Your task to perform on an android device: Open the calendar app, open the side menu, and click the "Day" option Image 0: 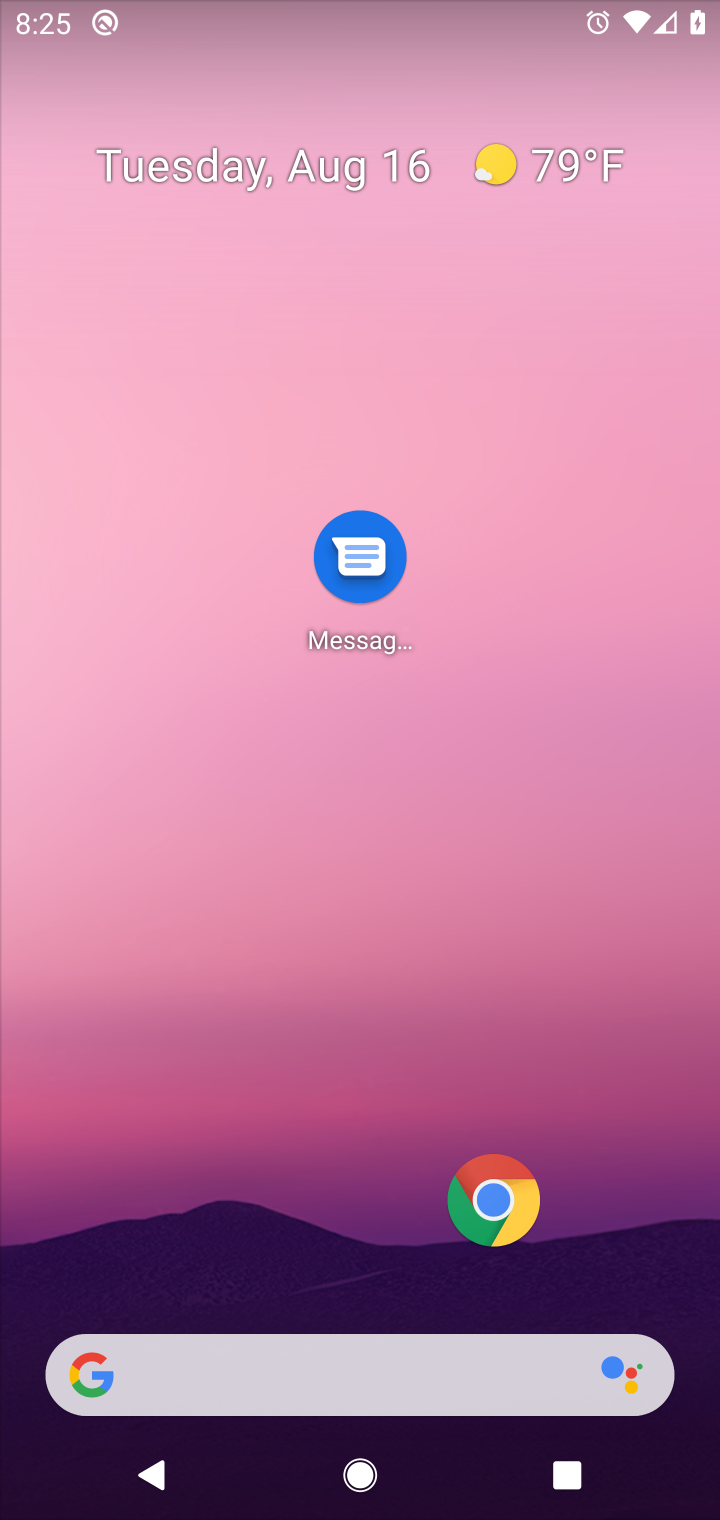
Step 0: click (451, 325)
Your task to perform on an android device: Open the calendar app, open the side menu, and click the "Day" option Image 1: 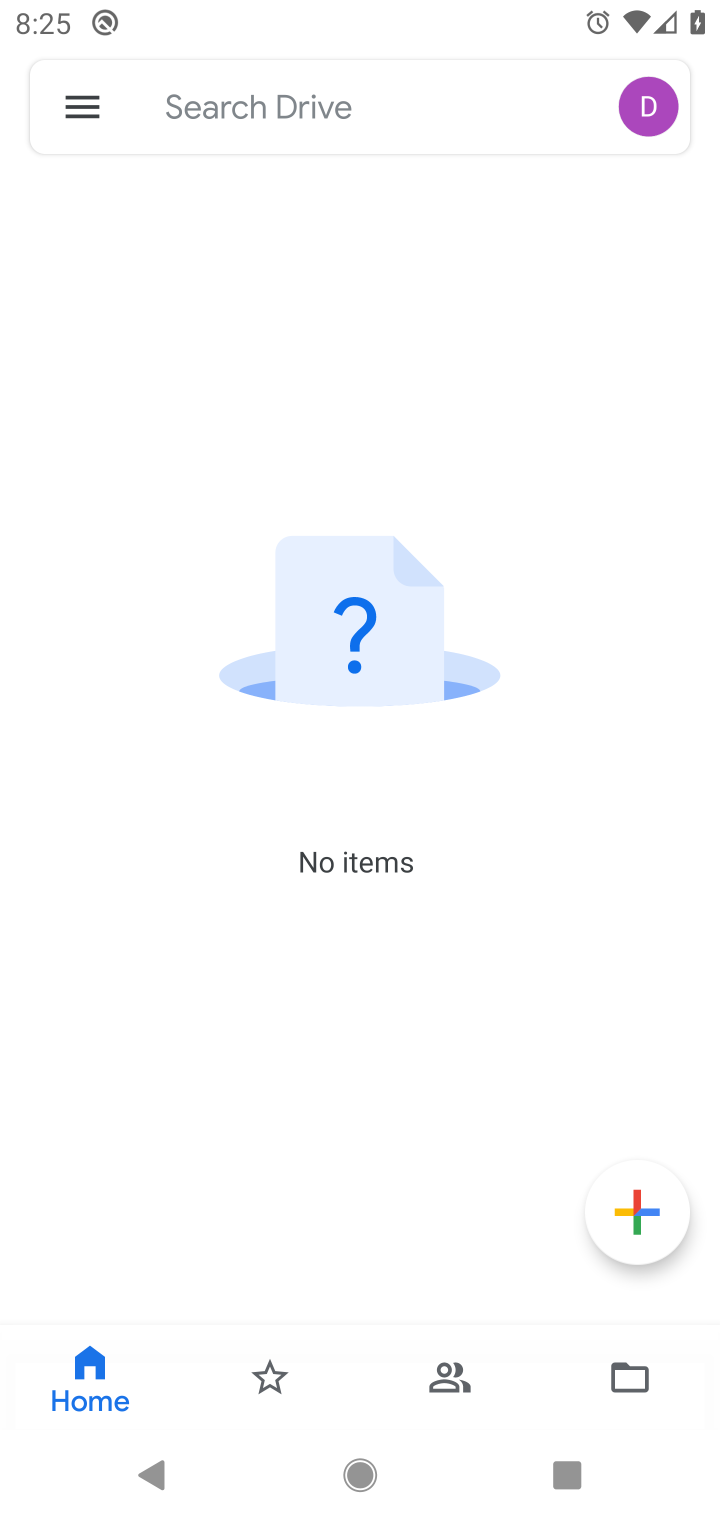
Step 1: task complete